Your task to perform on an android device: check battery use Image 0: 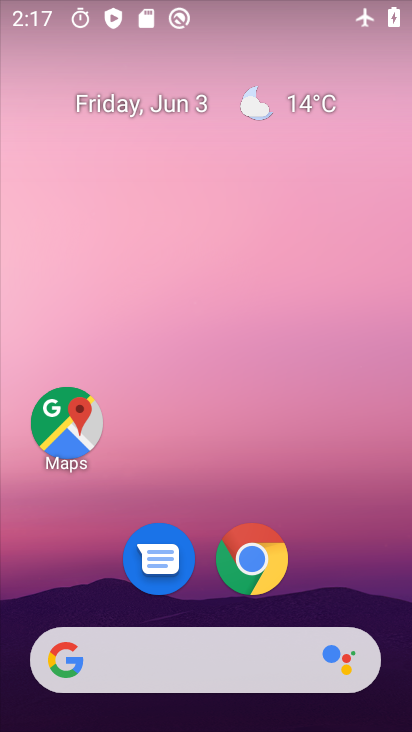
Step 0: drag from (169, 2) to (187, 39)
Your task to perform on an android device: check battery use Image 1: 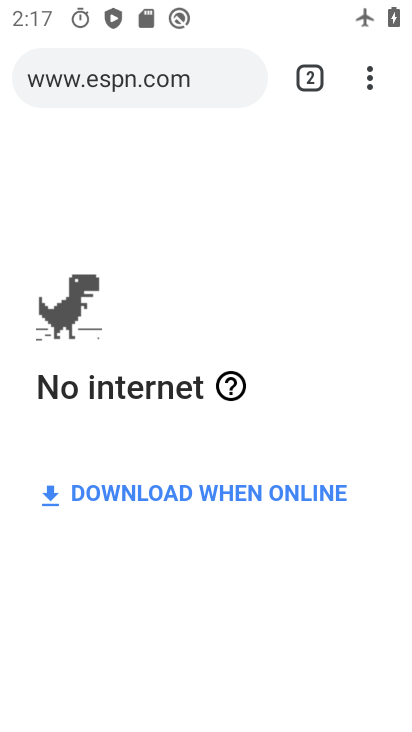
Step 1: press home button
Your task to perform on an android device: check battery use Image 2: 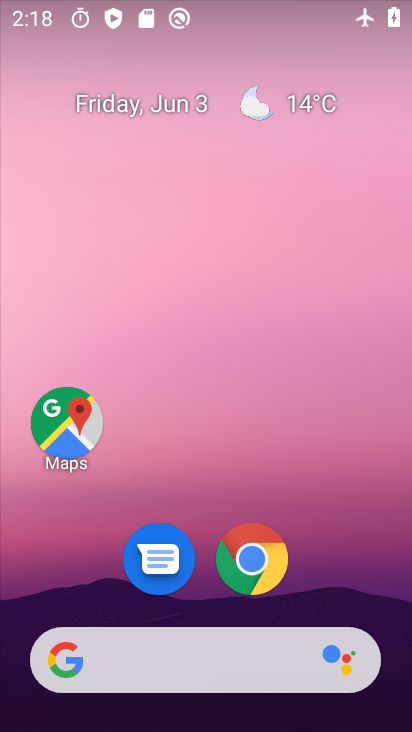
Step 2: drag from (217, 600) to (265, 24)
Your task to perform on an android device: check battery use Image 3: 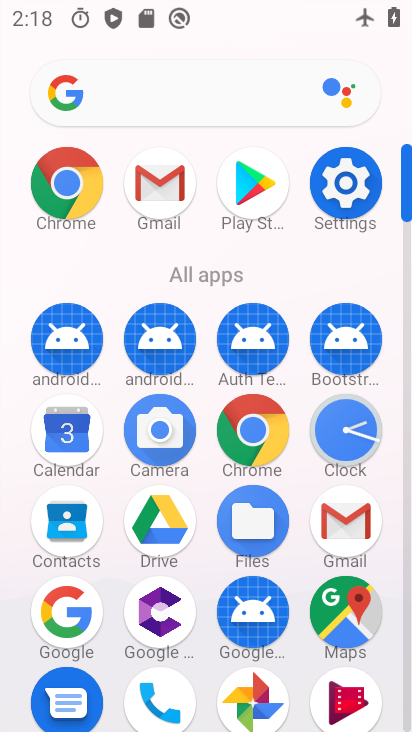
Step 3: click (324, 179)
Your task to perform on an android device: check battery use Image 4: 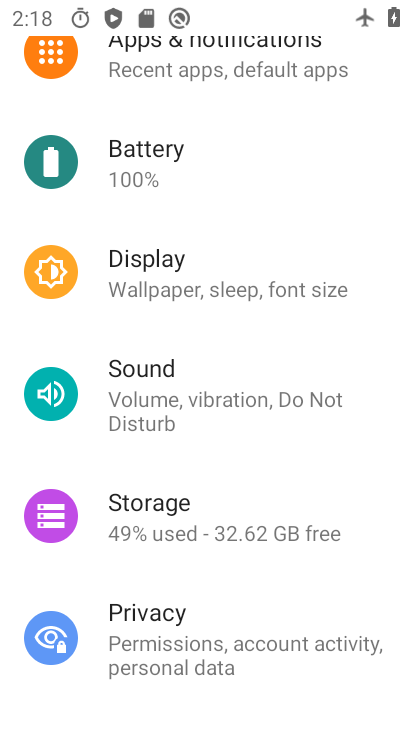
Step 4: drag from (217, 647) to (157, 496)
Your task to perform on an android device: check battery use Image 5: 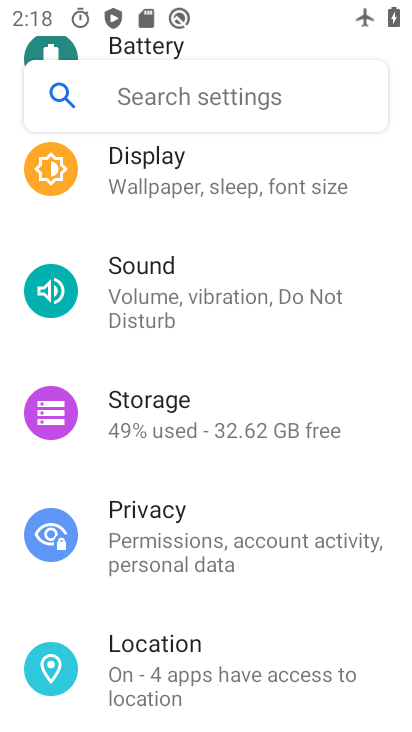
Step 5: drag from (228, 552) to (197, 189)
Your task to perform on an android device: check battery use Image 6: 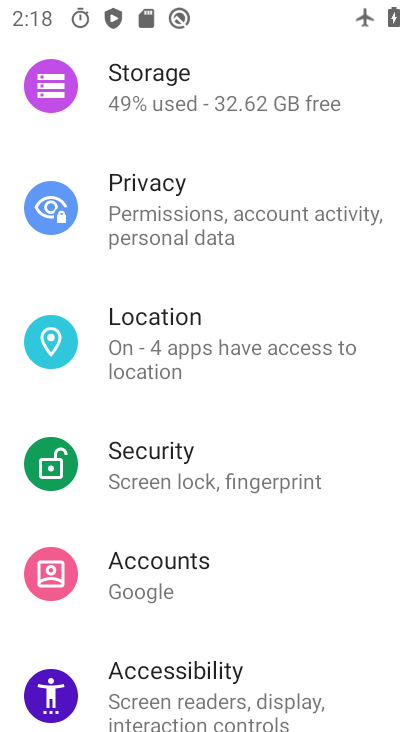
Step 6: drag from (195, 505) to (161, 148)
Your task to perform on an android device: check battery use Image 7: 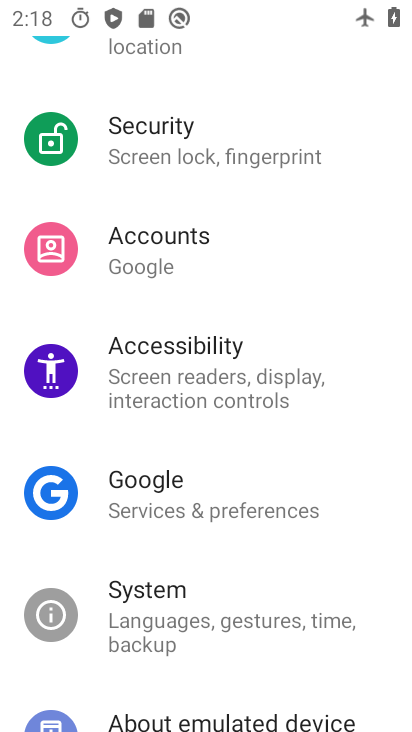
Step 7: drag from (163, 287) to (153, 684)
Your task to perform on an android device: check battery use Image 8: 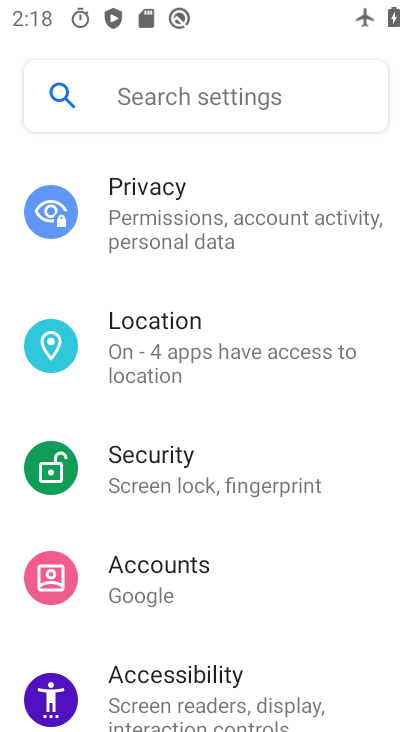
Step 8: drag from (211, 227) to (209, 652)
Your task to perform on an android device: check battery use Image 9: 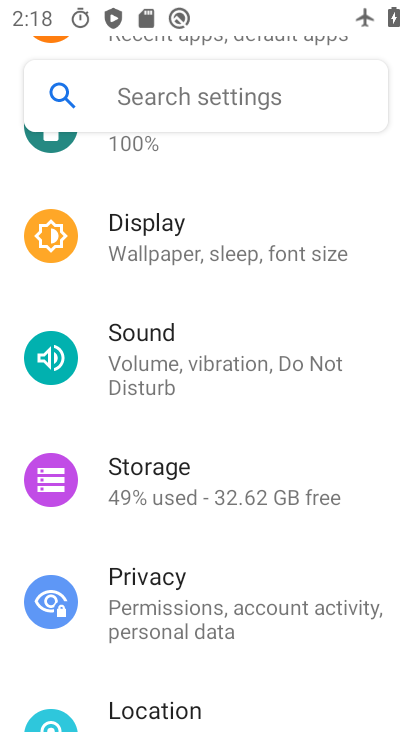
Step 9: click (132, 159)
Your task to perform on an android device: check battery use Image 10: 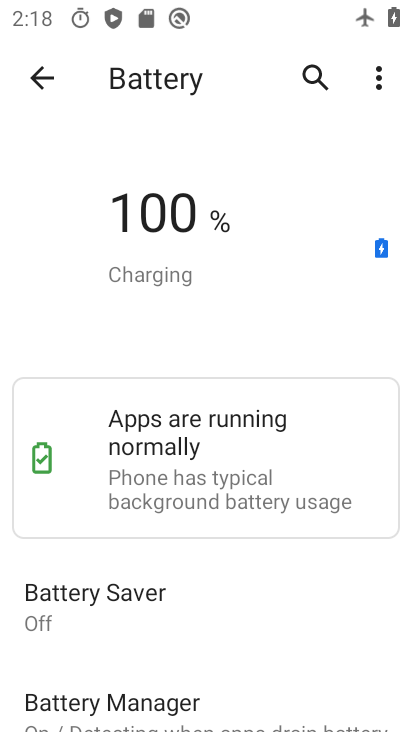
Step 10: task complete